Your task to perform on an android device: Open a new Chrome tab Image 0: 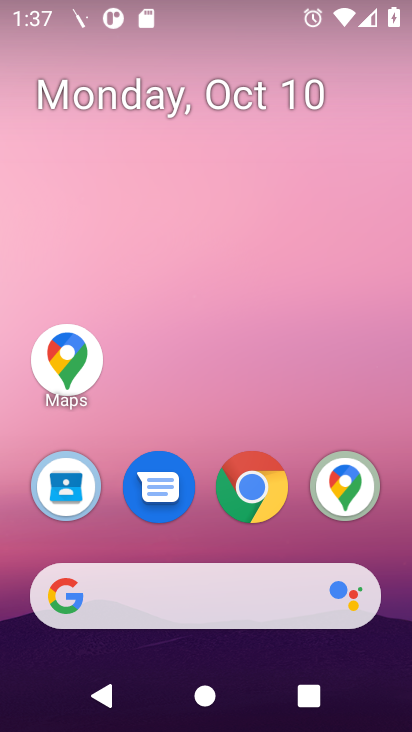
Step 0: click (258, 491)
Your task to perform on an android device: Open a new Chrome tab Image 1: 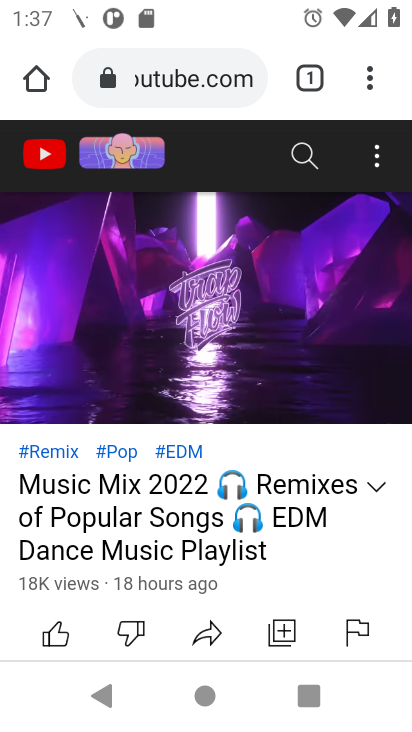
Step 1: click (315, 86)
Your task to perform on an android device: Open a new Chrome tab Image 2: 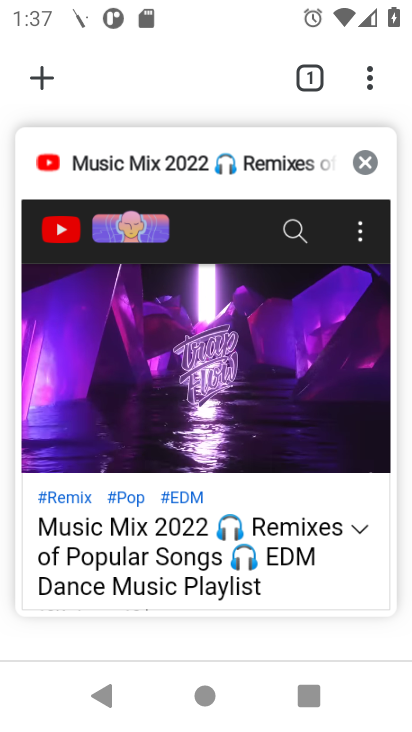
Step 2: click (362, 165)
Your task to perform on an android device: Open a new Chrome tab Image 3: 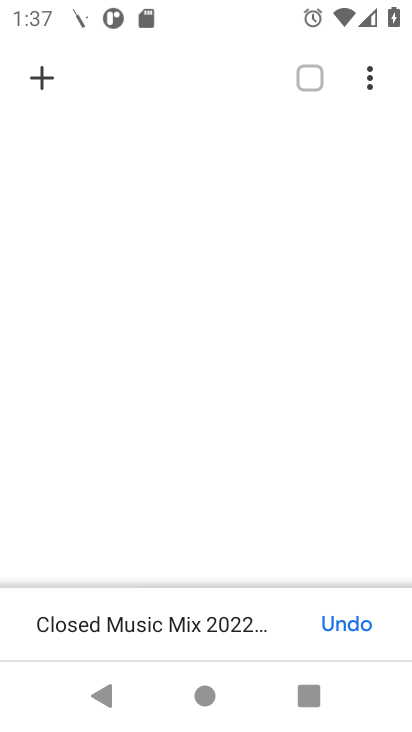
Step 3: click (32, 72)
Your task to perform on an android device: Open a new Chrome tab Image 4: 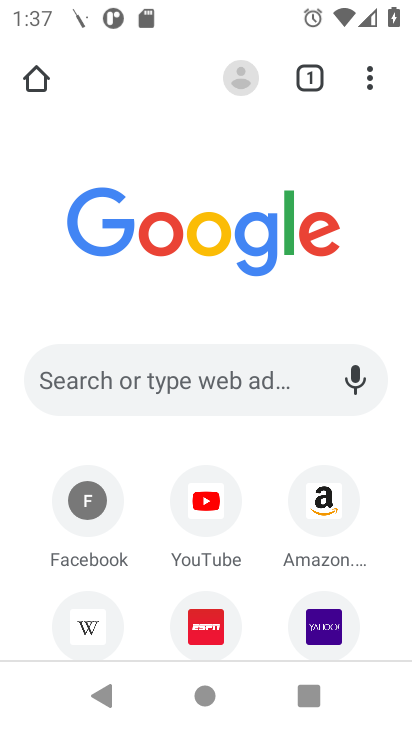
Step 4: task complete